Your task to perform on an android device: Check the weather Image 0: 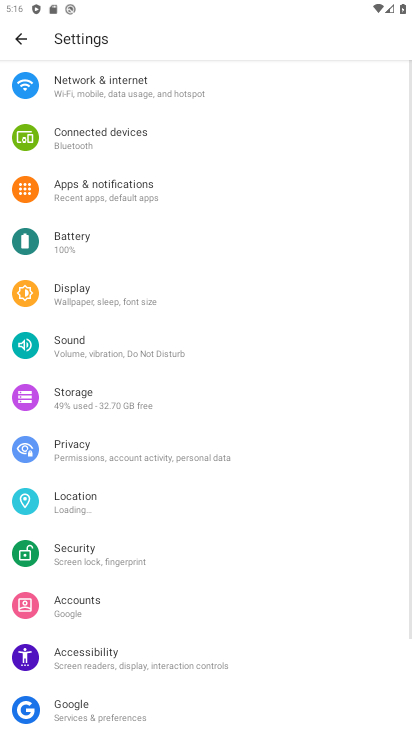
Step 0: press home button
Your task to perform on an android device: Check the weather Image 1: 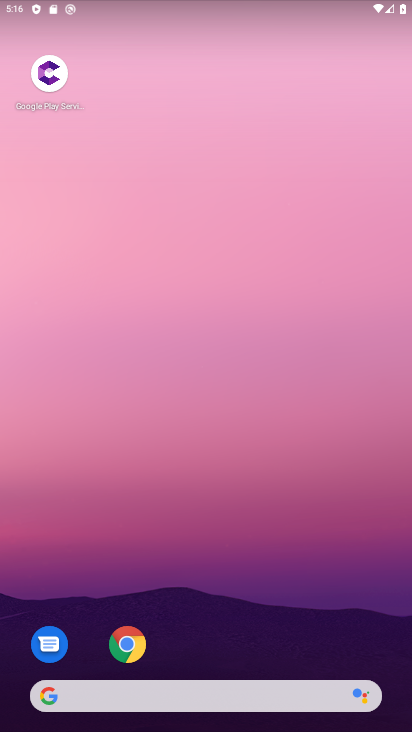
Step 1: drag from (332, 617) to (300, 346)
Your task to perform on an android device: Check the weather Image 2: 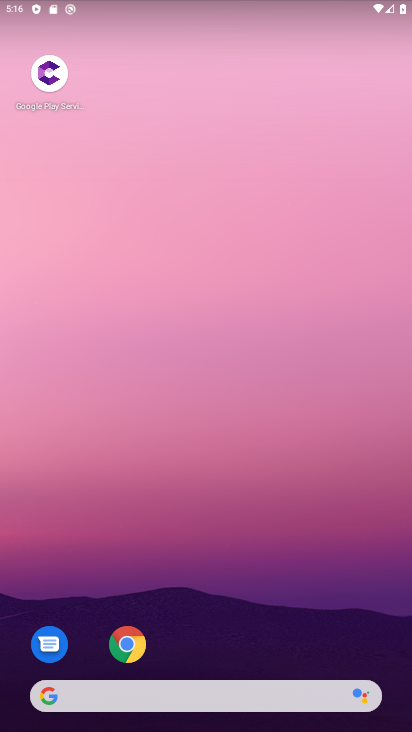
Step 2: click (146, 641)
Your task to perform on an android device: Check the weather Image 3: 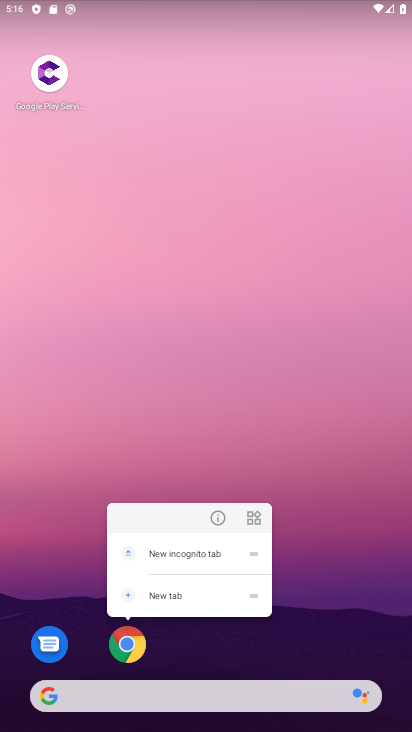
Step 3: click (120, 649)
Your task to perform on an android device: Check the weather Image 4: 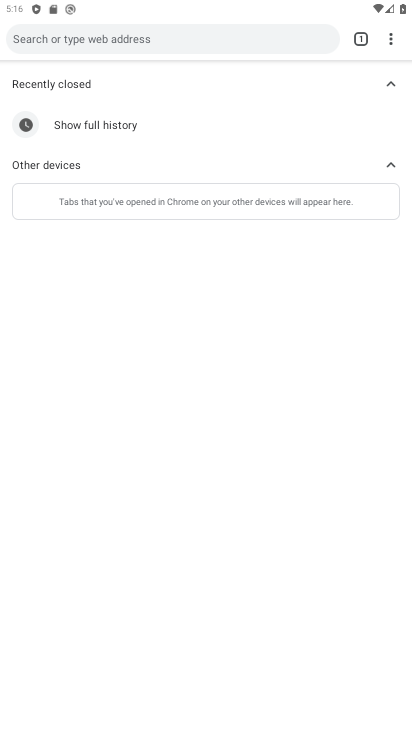
Step 4: click (180, 41)
Your task to perform on an android device: Check the weather Image 5: 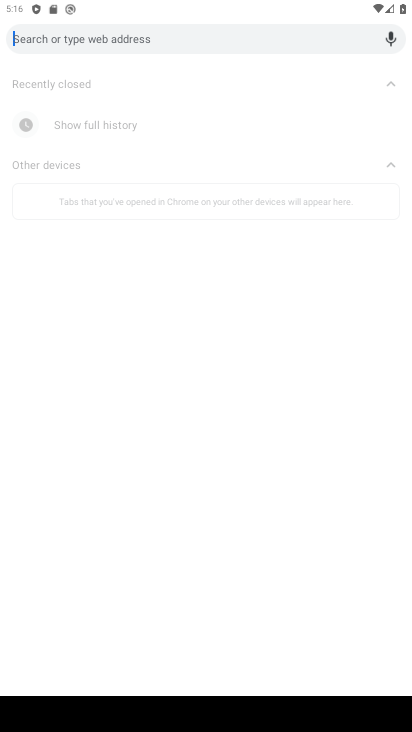
Step 5: type "weather"
Your task to perform on an android device: Check the weather Image 6: 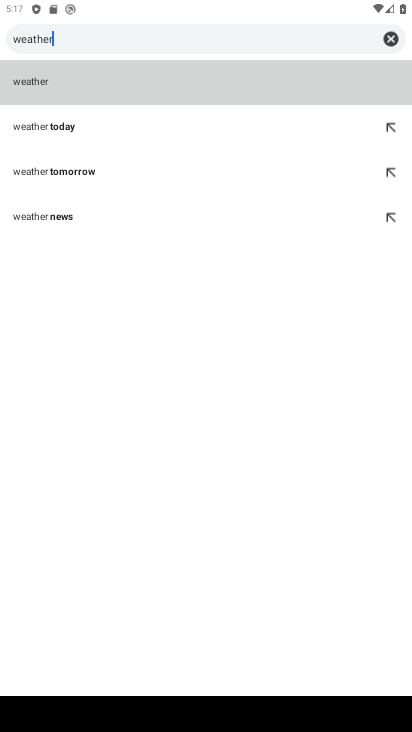
Step 6: click (261, 83)
Your task to perform on an android device: Check the weather Image 7: 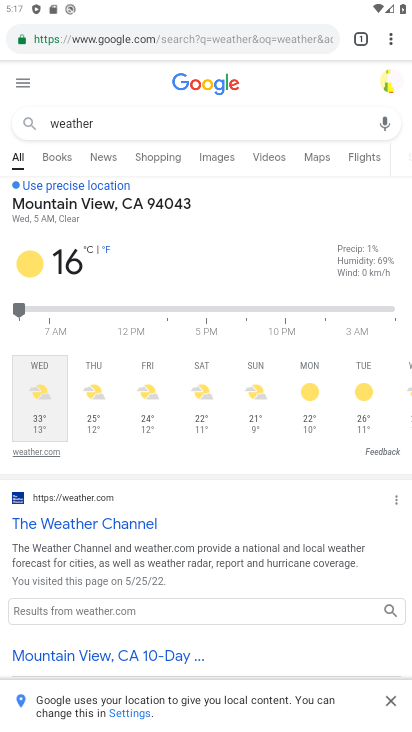
Step 7: task complete